Your task to perform on an android device: toggle show notifications on the lock screen Image 0: 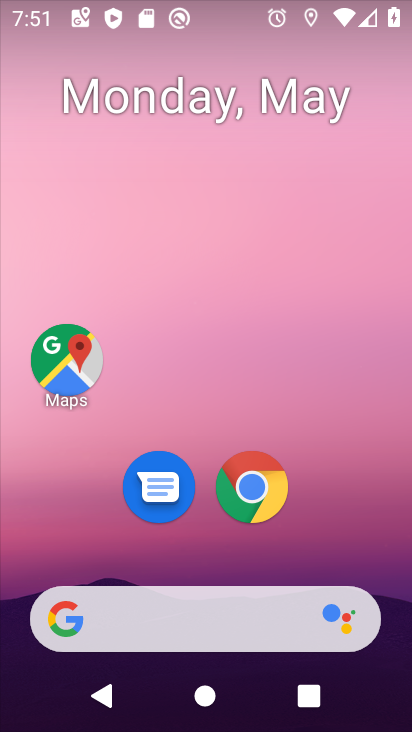
Step 0: press home button
Your task to perform on an android device: toggle show notifications on the lock screen Image 1: 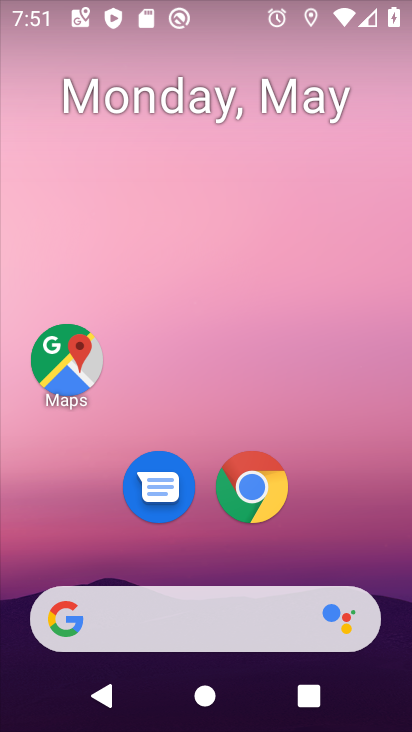
Step 1: drag from (359, 554) to (376, 208)
Your task to perform on an android device: toggle show notifications on the lock screen Image 2: 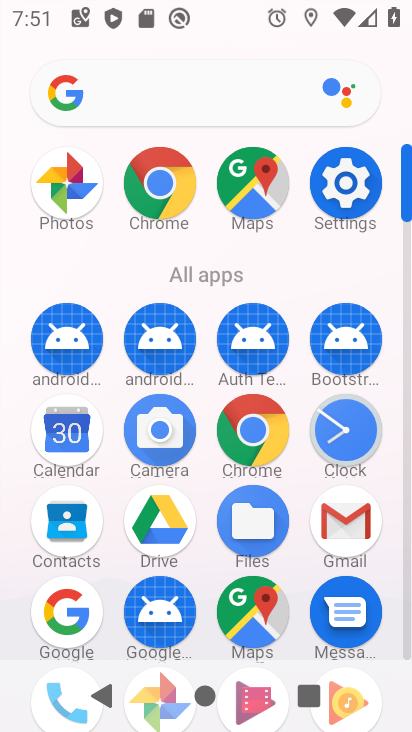
Step 2: click (345, 192)
Your task to perform on an android device: toggle show notifications on the lock screen Image 3: 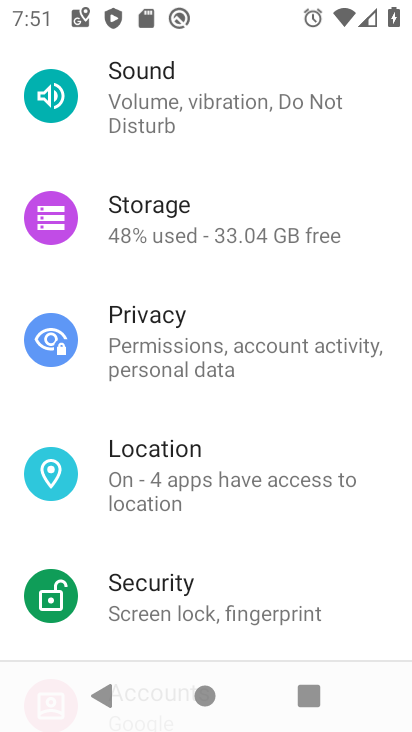
Step 3: drag from (288, 538) to (200, 718)
Your task to perform on an android device: toggle show notifications on the lock screen Image 4: 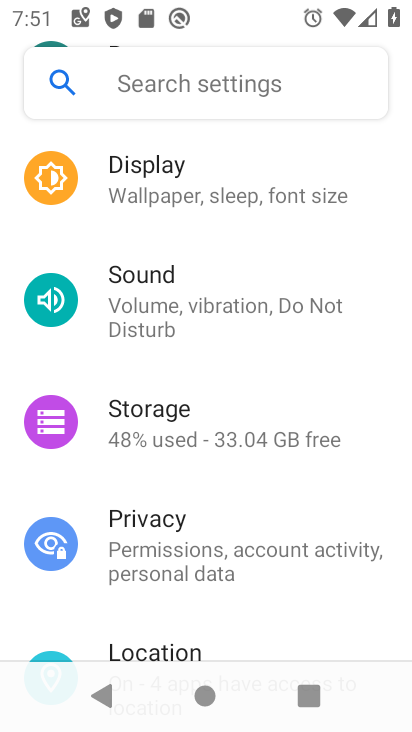
Step 4: drag from (249, 249) to (260, 434)
Your task to perform on an android device: toggle show notifications on the lock screen Image 5: 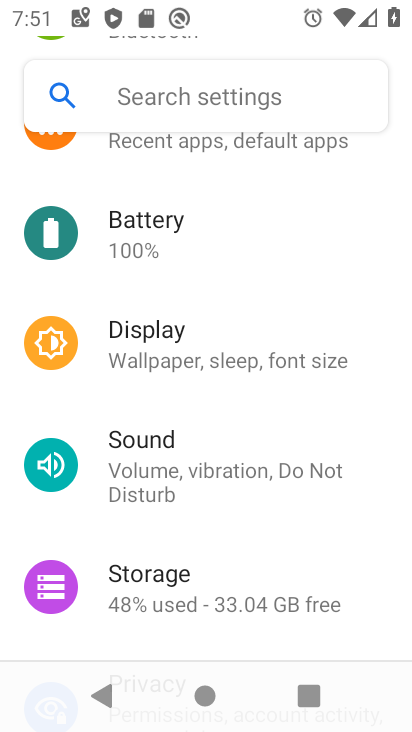
Step 5: drag from (206, 251) to (236, 473)
Your task to perform on an android device: toggle show notifications on the lock screen Image 6: 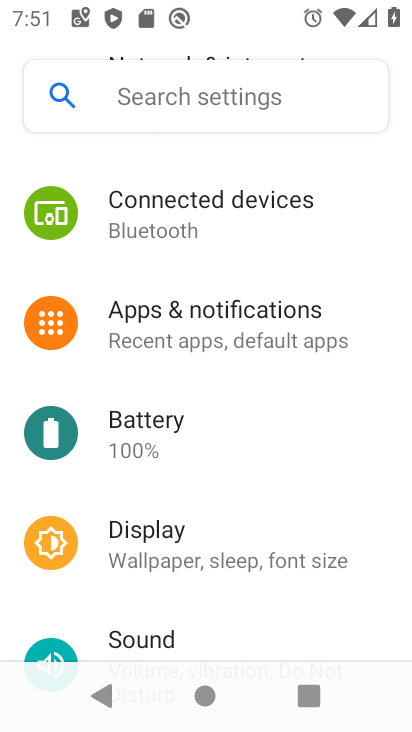
Step 6: click (199, 314)
Your task to perform on an android device: toggle show notifications on the lock screen Image 7: 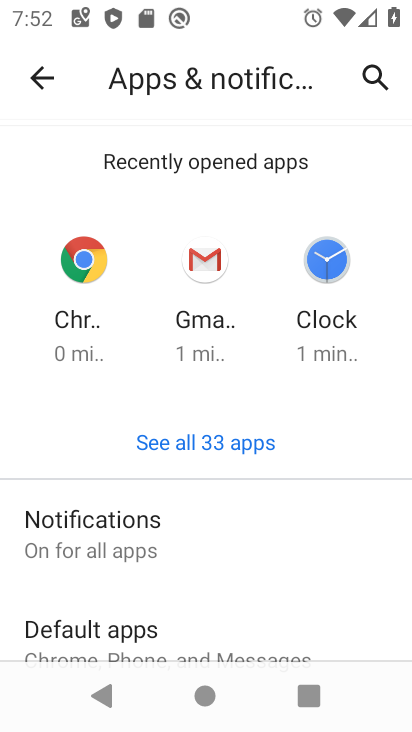
Step 7: click (96, 530)
Your task to perform on an android device: toggle show notifications on the lock screen Image 8: 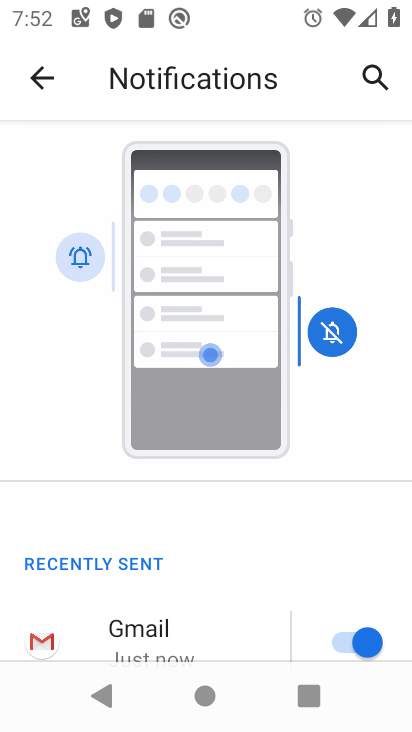
Step 8: drag from (265, 526) to (270, 162)
Your task to perform on an android device: toggle show notifications on the lock screen Image 9: 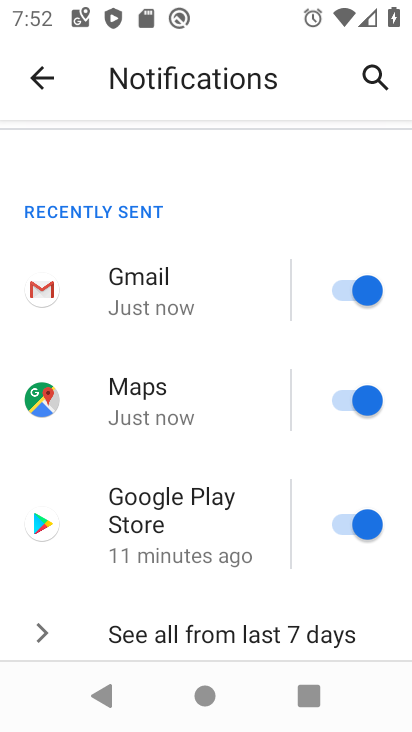
Step 9: drag from (225, 467) to (260, 79)
Your task to perform on an android device: toggle show notifications on the lock screen Image 10: 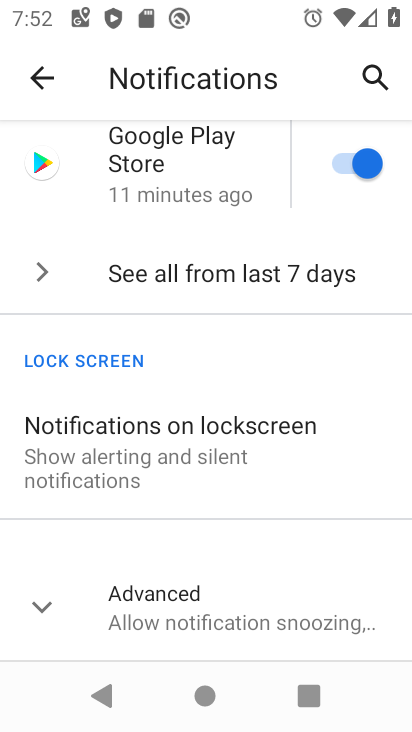
Step 10: click (175, 441)
Your task to perform on an android device: toggle show notifications on the lock screen Image 11: 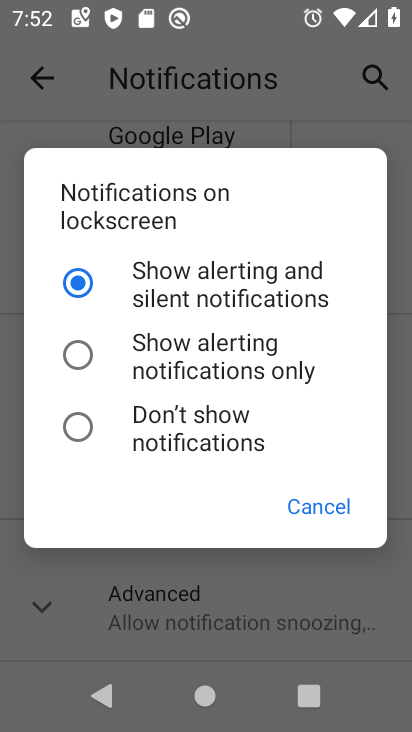
Step 11: click (84, 356)
Your task to perform on an android device: toggle show notifications on the lock screen Image 12: 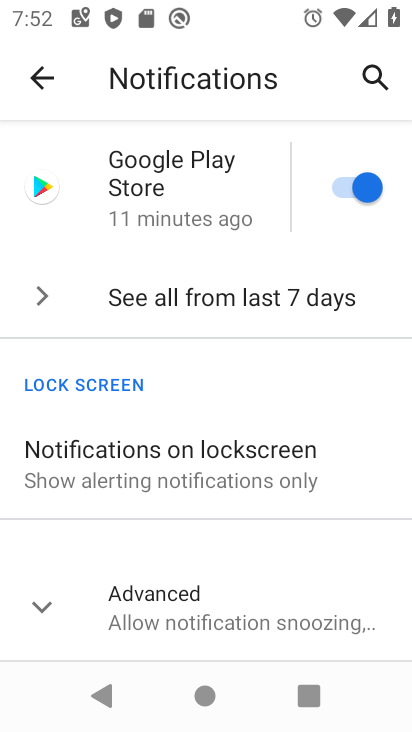
Step 12: task complete